Your task to perform on an android device: refresh tabs in the chrome app Image 0: 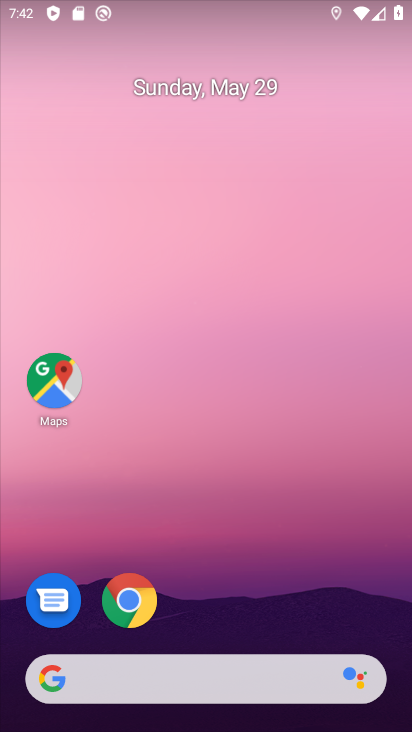
Step 0: click (137, 593)
Your task to perform on an android device: refresh tabs in the chrome app Image 1: 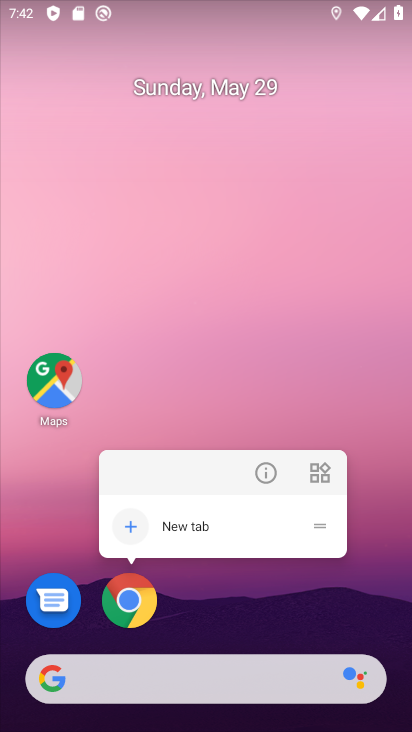
Step 1: click (135, 593)
Your task to perform on an android device: refresh tabs in the chrome app Image 2: 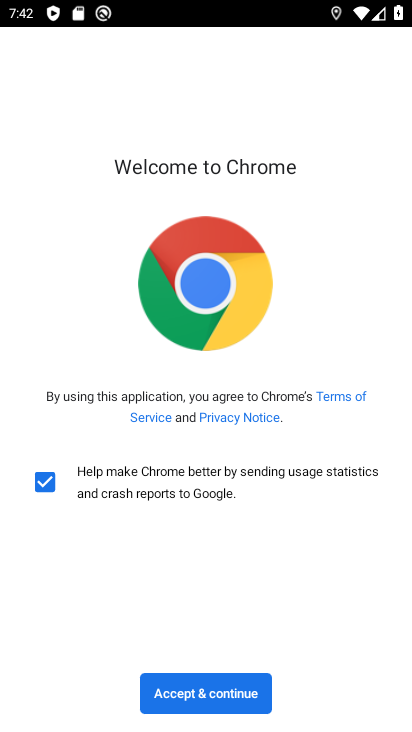
Step 2: click (197, 690)
Your task to perform on an android device: refresh tabs in the chrome app Image 3: 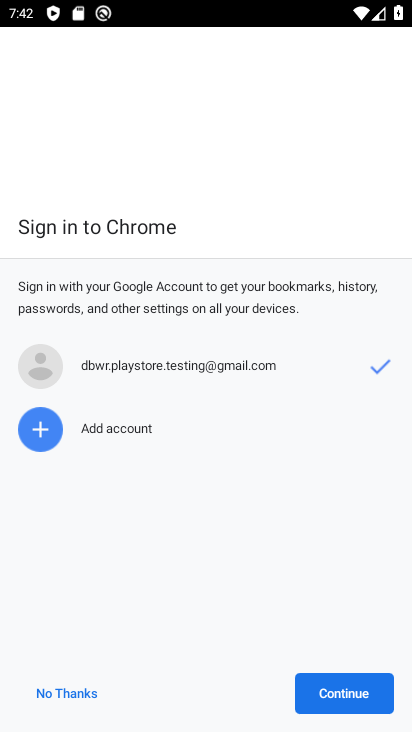
Step 3: click (341, 704)
Your task to perform on an android device: refresh tabs in the chrome app Image 4: 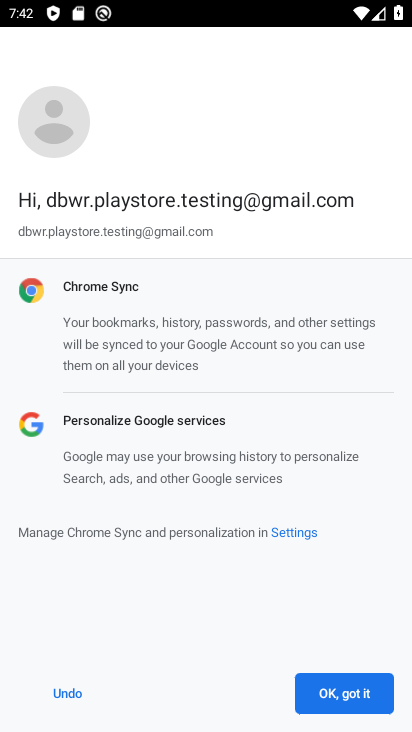
Step 4: click (345, 685)
Your task to perform on an android device: refresh tabs in the chrome app Image 5: 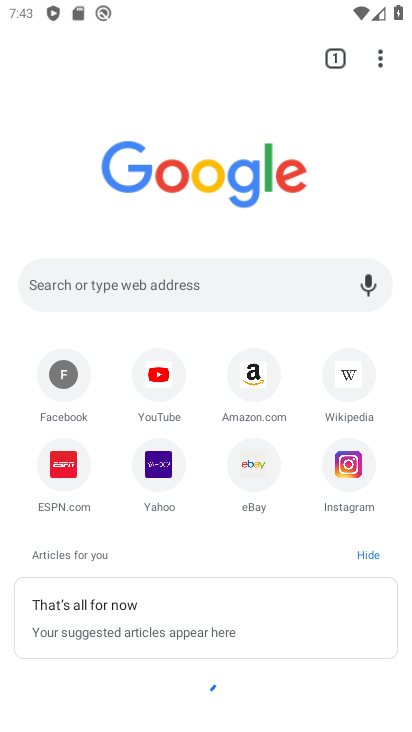
Step 5: click (385, 54)
Your task to perform on an android device: refresh tabs in the chrome app Image 6: 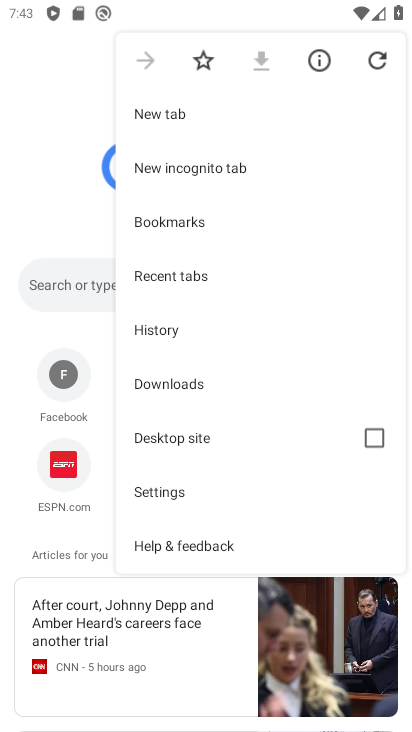
Step 6: click (372, 66)
Your task to perform on an android device: refresh tabs in the chrome app Image 7: 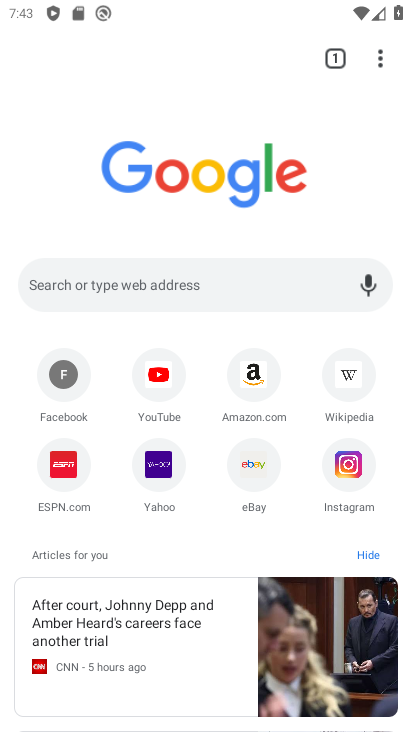
Step 7: task complete